Your task to perform on an android device: Open sound settings Image 0: 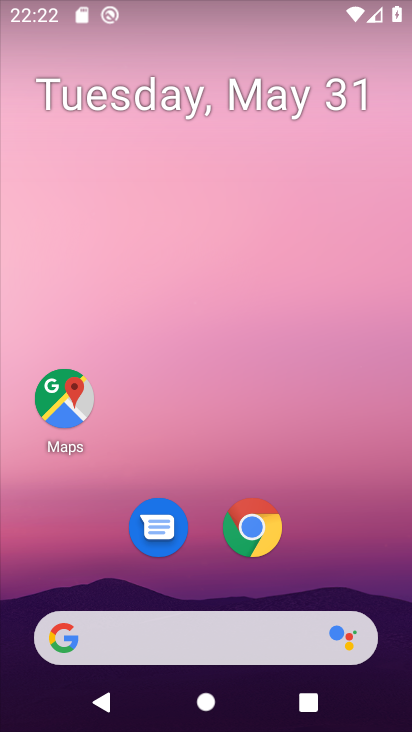
Step 0: drag from (344, 506) to (139, 0)
Your task to perform on an android device: Open sound settings Image 1: 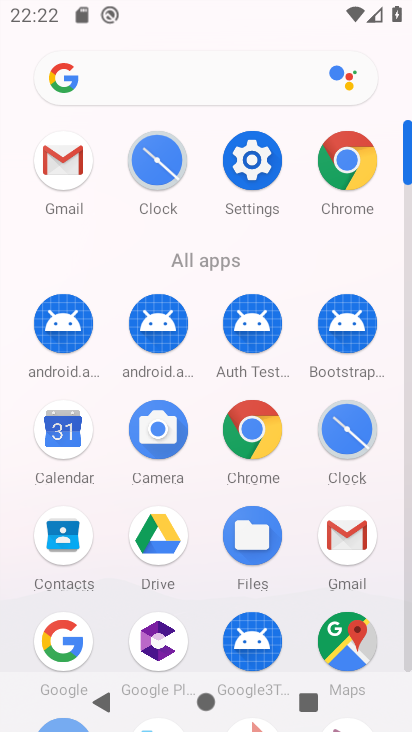
Step 1: click (245, 147)
Your task to perform on an android device: Open sound settings Image 2: 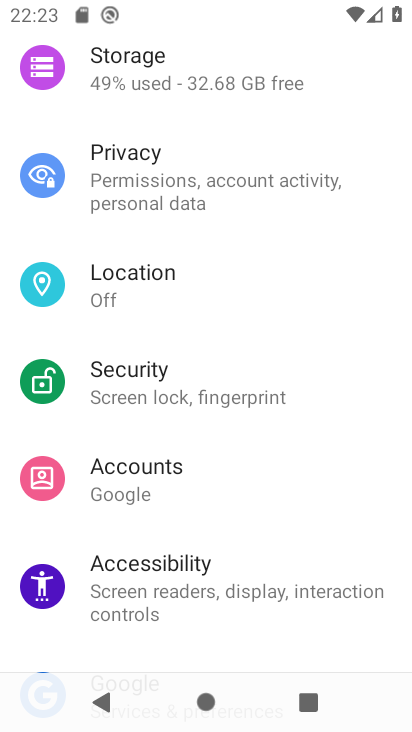
Step 2: drag from (187, 135) to (187, 469)
Your task to perform on an android device: Open sound settings Image 3: 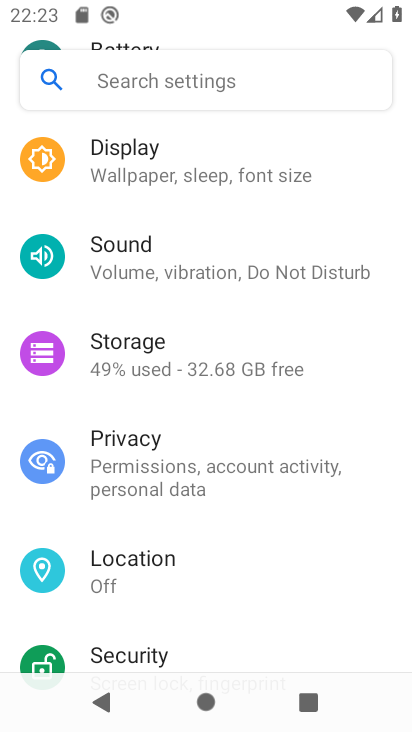
Step 3: click (161, 262)
Your task to perform on an android device: Open sound settings Image 4: 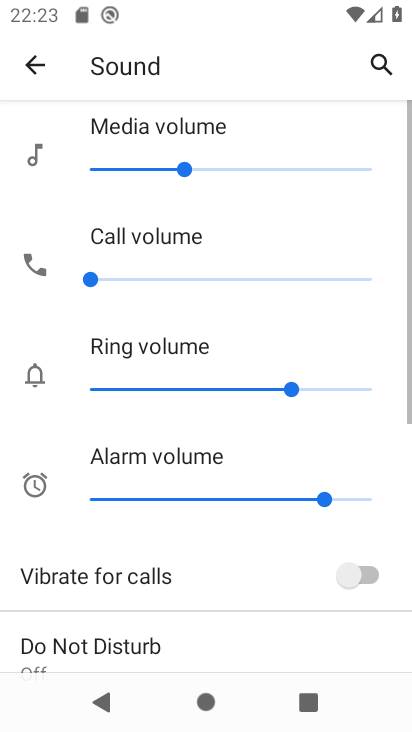
Step 4: task complete